Your task to perform on an android device: turn on location history Image 0: 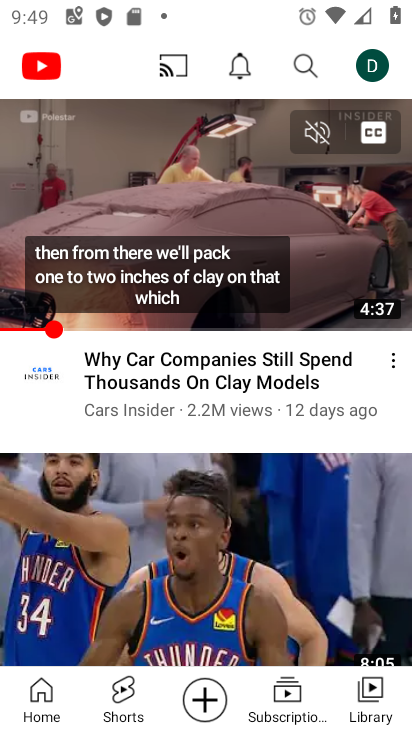
Step 0: press back button
Your task to perform on an android device: turn on location history Image 1: 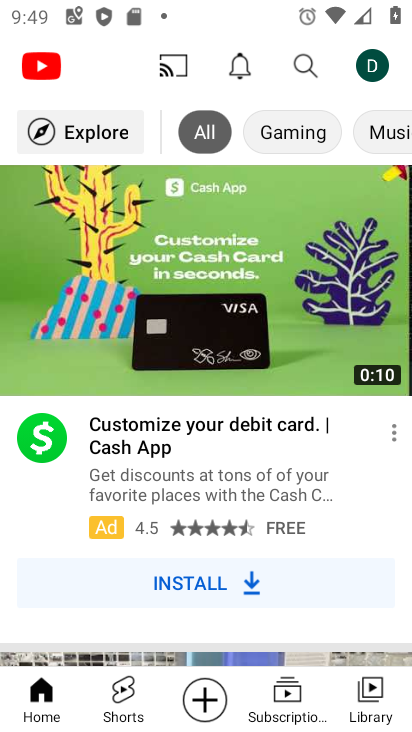
Step 1: press back button
Your task to perform on an android device: turn on location history Image 2: 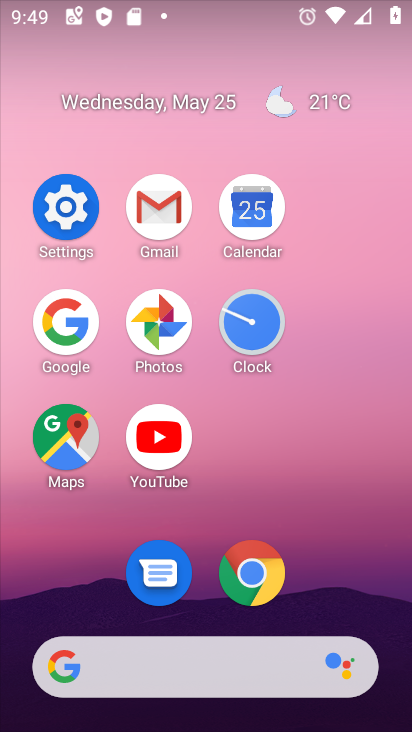
Step 2: click (68, 235)
Your task to perform on an android device: turn on location history Image 3: 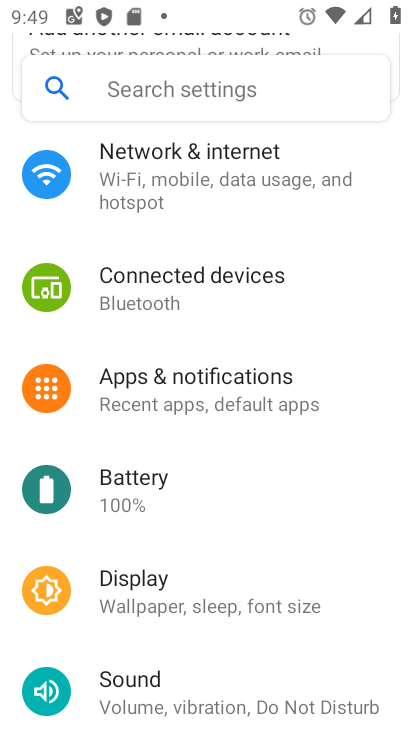
Step 3: drag from (271, 594) to (260, 225)
Your task to perform on an android device: turn on location history Image 4: 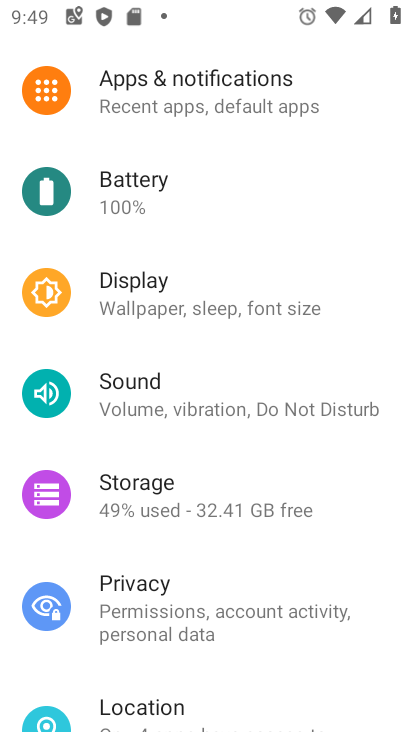
Step 4: click (155, 705)
Your task to perform on an android device: turn on location history Image 5: 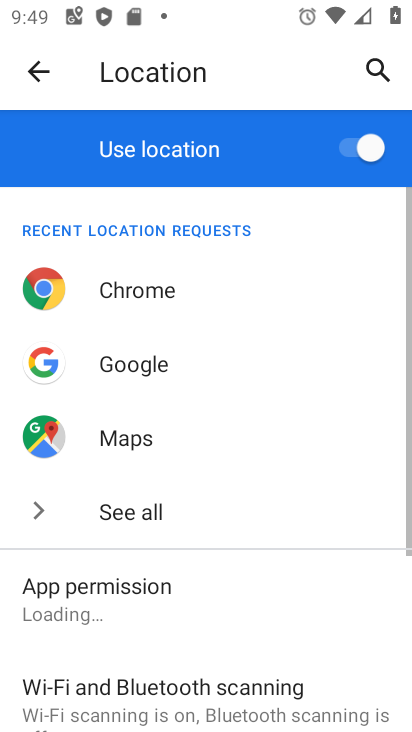
Step 5: drag from (154, 670) to (235, 257)
Your task to perform on an android device: turn on location history Image 6: 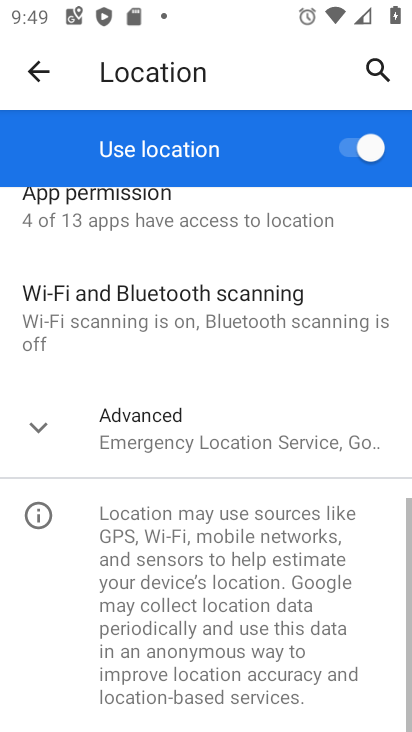
Step 6: click (270, 451)
Your task to perform on an android device: turn on location history Image 7: 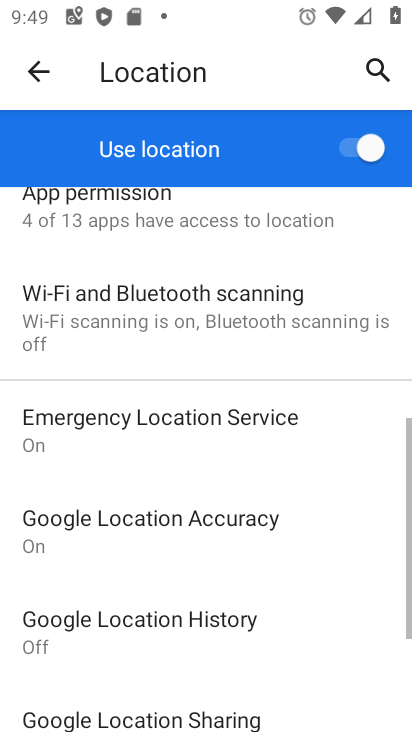
Step 7: drag from (251, 574) to (231, 283)
Your task to perform on an android device: turn on location history Image 8: 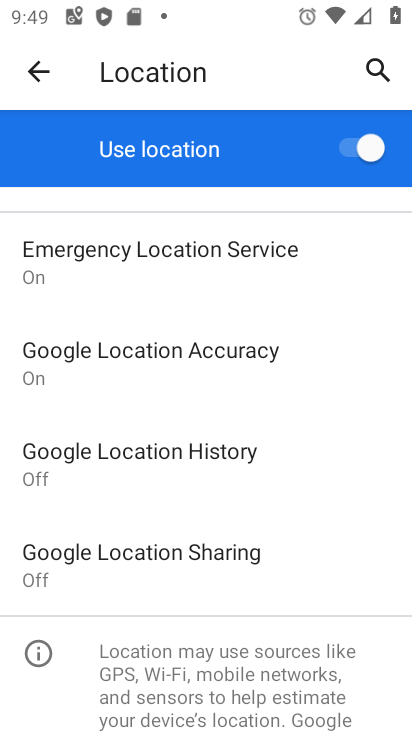
Step 8: click (239, 463)
Your task to perform on an android device: turn on location history Image 9: 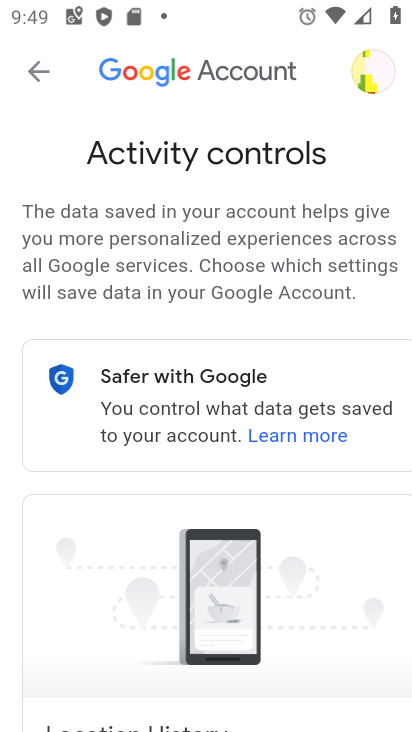
Step 9: drag from (366, 538) to (387, 118)
Your task to perform on an android device: turn on location history Image 10: 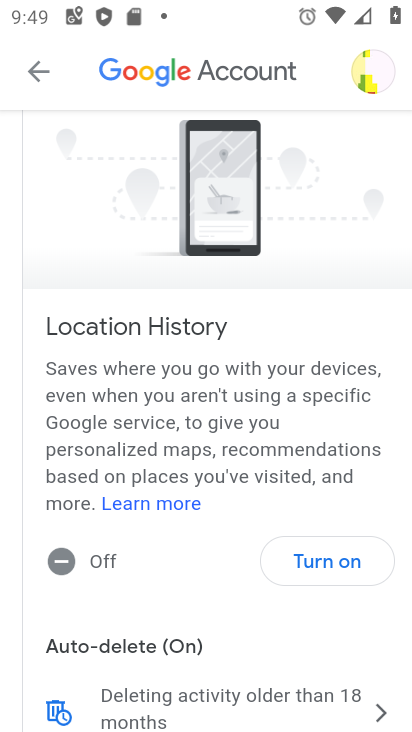
Step 10: click (338, 554)
Your task to perform on an android device: turn on location history Image 11: 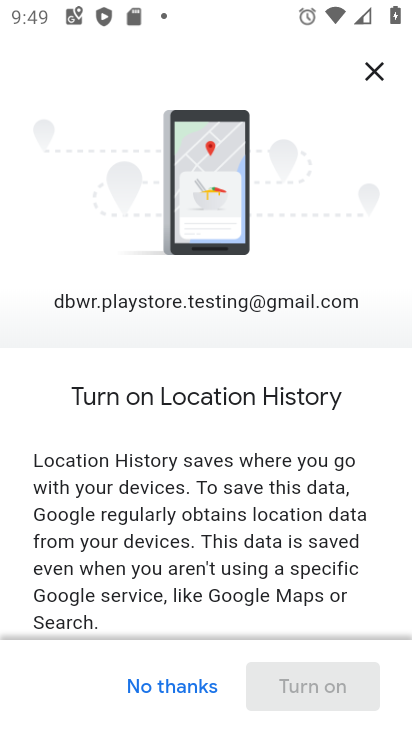
Step 11: drag from (316, 575) to (269, 101)
Your task to perform on an android device: turn on location history Image 12: 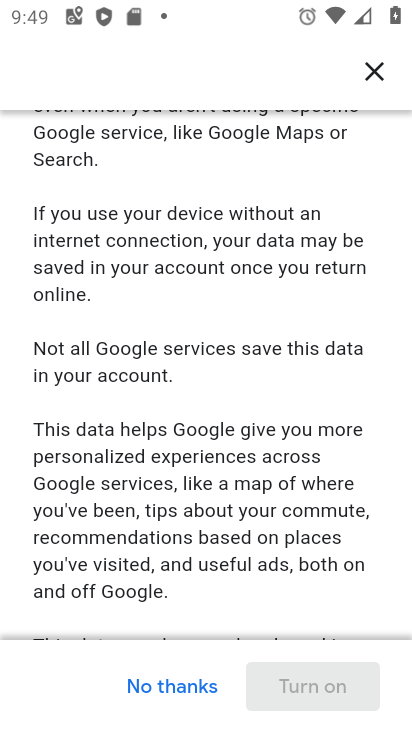
Step 12: drag from (277, 593) to (200, 136)
Your task to perform on an android device: turn on location history Image 13: 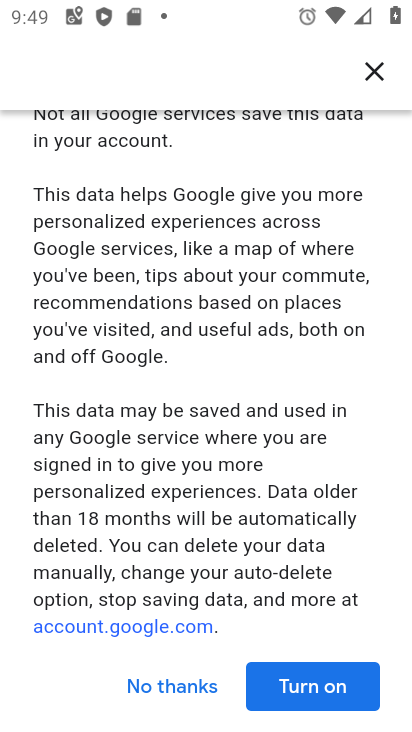
Step 13: click (279, 685)
Your task to perform on an android device: turn on location history Image 14: 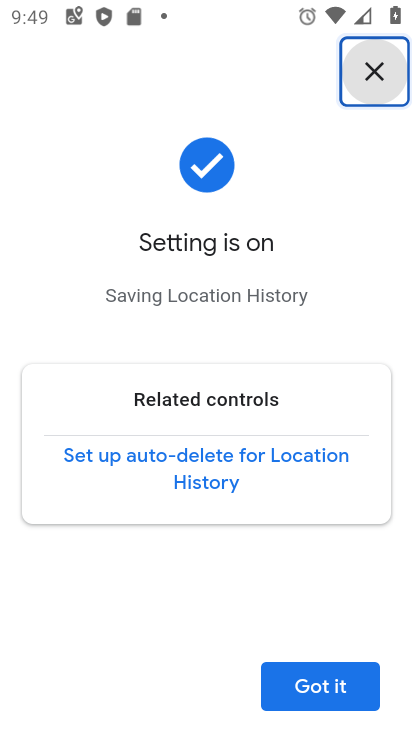
Step 14: click (331, 713)
Your task to perform on an android device: turn on location history Image 15: 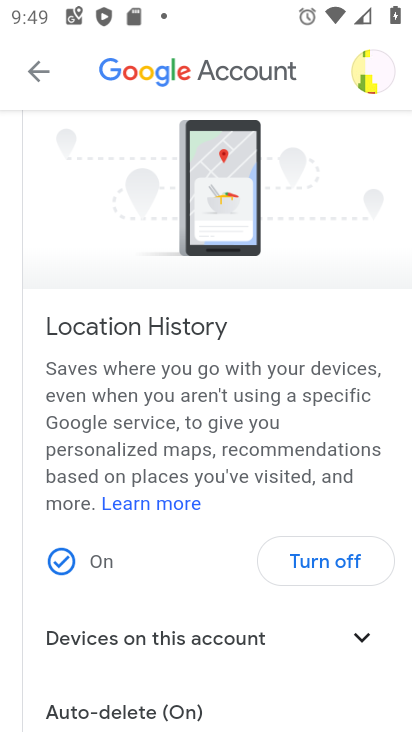
Step 15: task complete